Your task to perform on an android device: check android version Image 0: 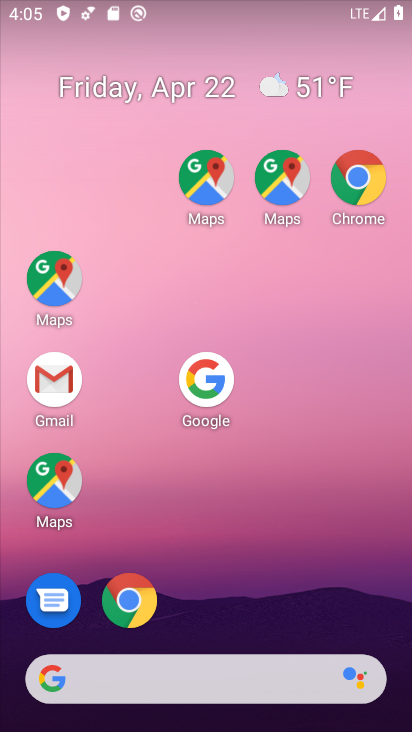
Step 0: drag from (279, 723) to (29, 14)
Your task to perform on an android device: check android version Image 1: 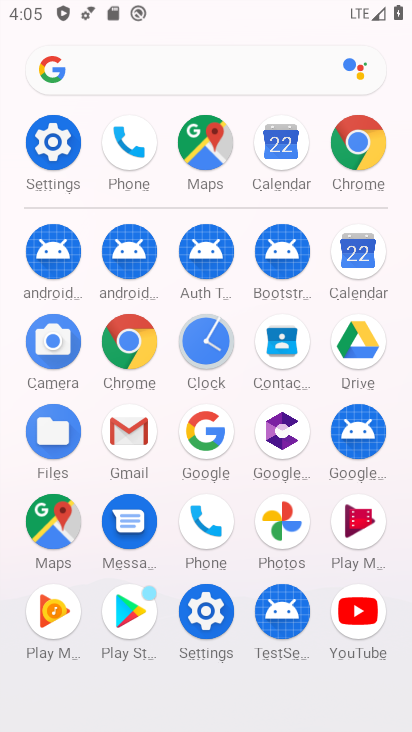
Step 1: click (363, 144)
Your task to perform on an android device: check android version Image 2: 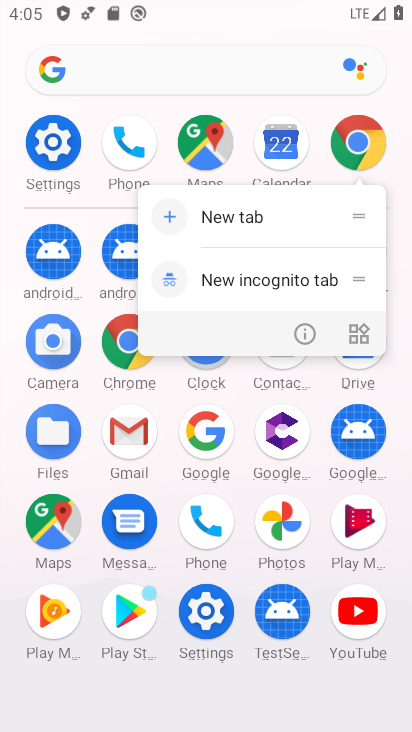
Step 2: click (362, 144)
Your task to perform on an android device: check android version Image 3: 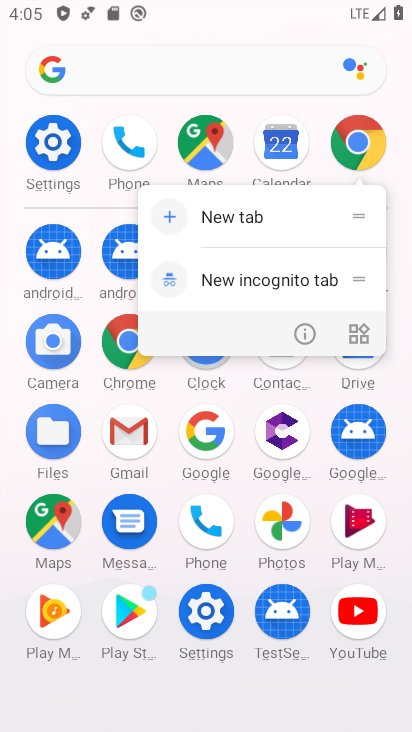
Step 3: click (362, 144)
Your task to perform on an android device: check android version Image 4: 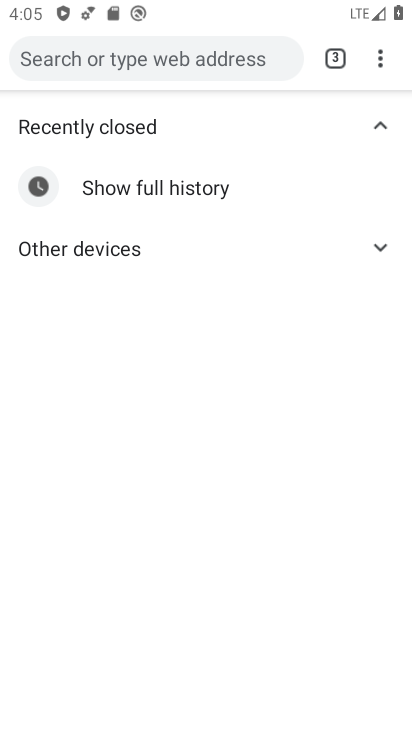
Step 4: click (381, 141)
Your task to perform on an android device: check android version Image 5: 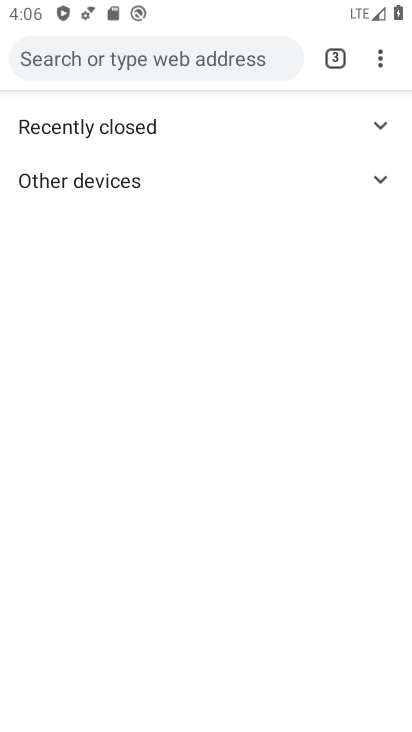
Step 5: press home button
Your task to perform on an android device: check android version Image 6: 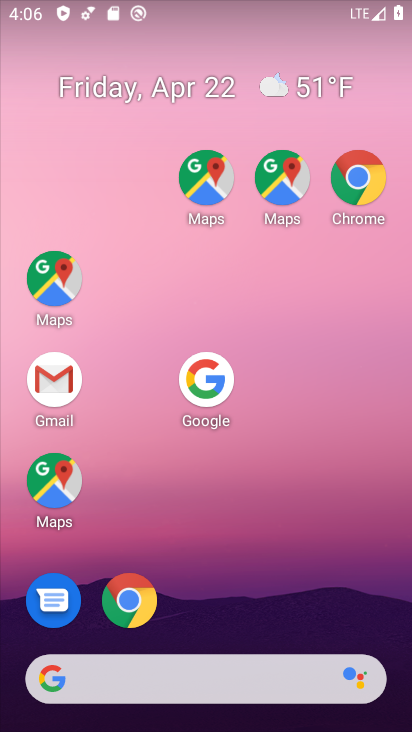
Step 6: drag from (317, 588) to (152, 28)
Your task to perform on an android device: check android version Image 7: 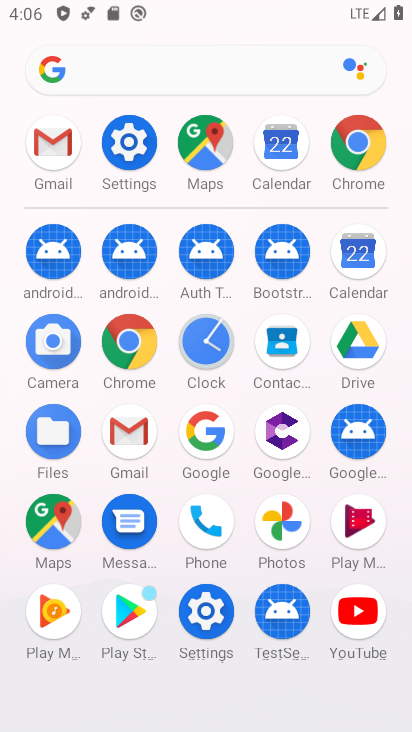
Step 7: click (355, 147)
Your task to perform on an android device: check android version Image 8: 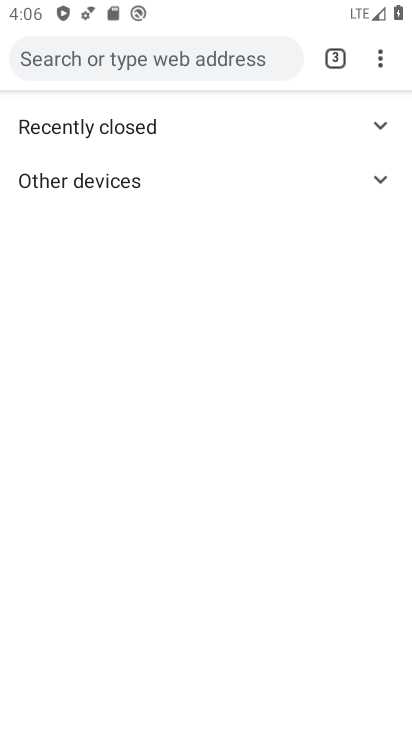
Step 8: press home button
Your task to perform on an android device: check android version Image 9: 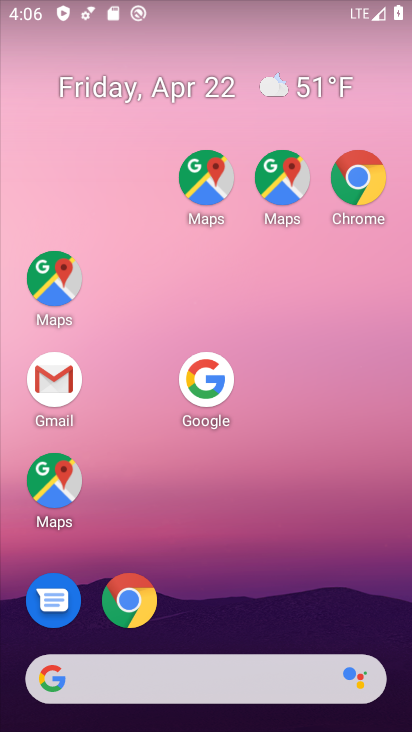
Step 9: drag from (152, 365) to (68, 70)
Your task to perform on an android device: check android version Image 10: 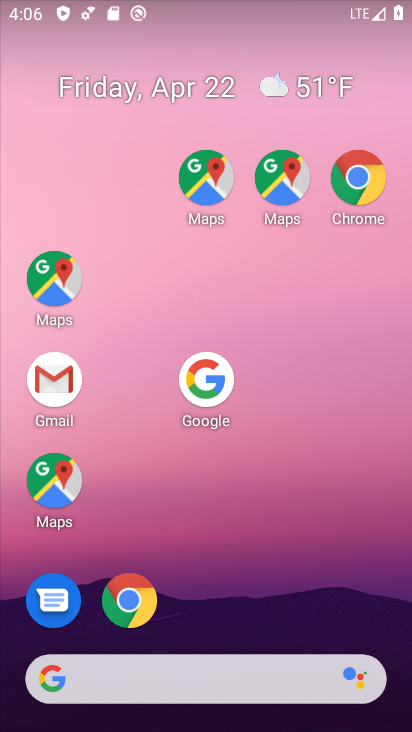
Step 10: drag from (182, 291) to (139, 101)
Your task to perform on an android device: check android version Image 11: 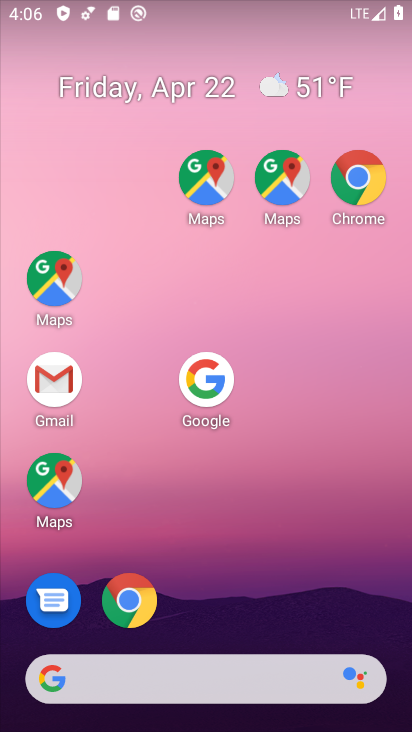
Step 11: drag from (284, 540) to (151, 136)
Your task to perform on an android device: check android version Image 12: 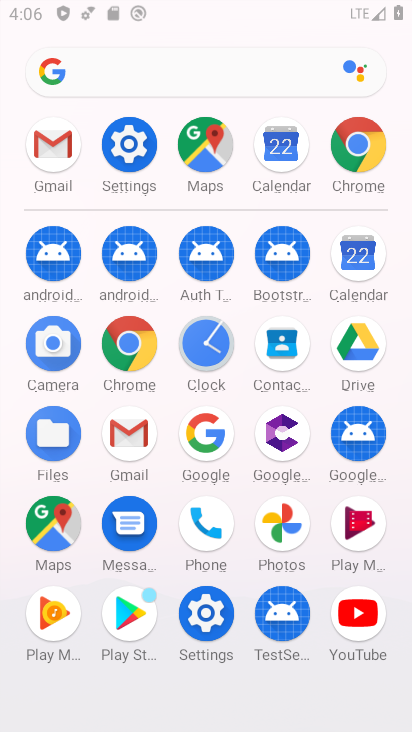
Step 12: drag from (276, 397) to (181, 131)
Your task to perform on an android device: check android version Image 13: 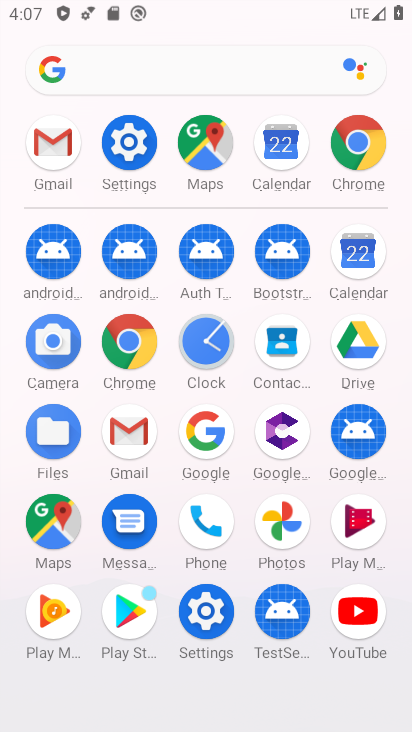
Step 13: click (205, 612)
Your task to perform on an android device: check android version Image 14: 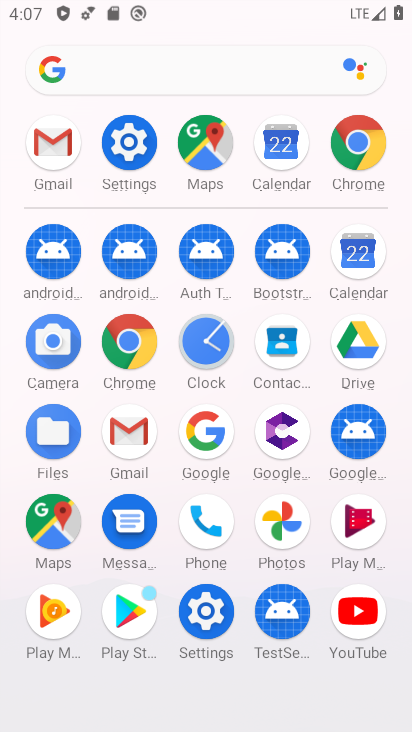
Step 14: click (207, 612)
Your task to perform on an android device: check android version Image 15: 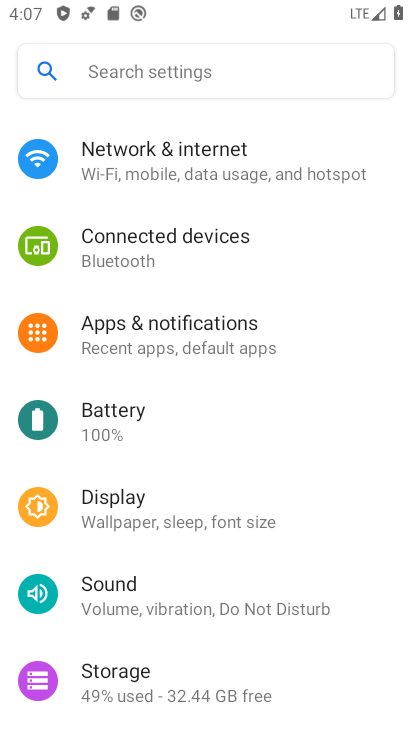
Step 15: click (207, 612)
Your task to perform on an android device: check android version Image 16: 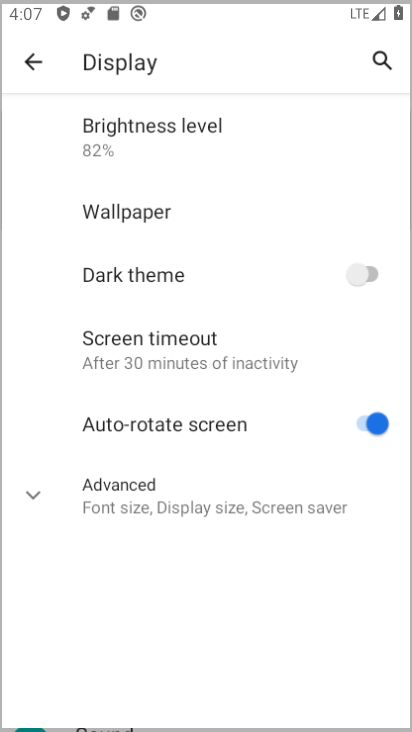
Step 16: drag from (229, 570) to (264, 10)
Your task to perform on an android device: check android version Image 17: 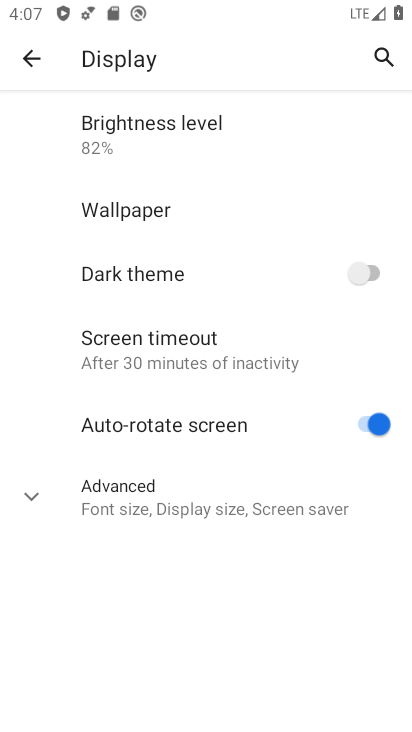
Step 17: click (29, 66)
Your task to perform on an android device: check android version Image 18: 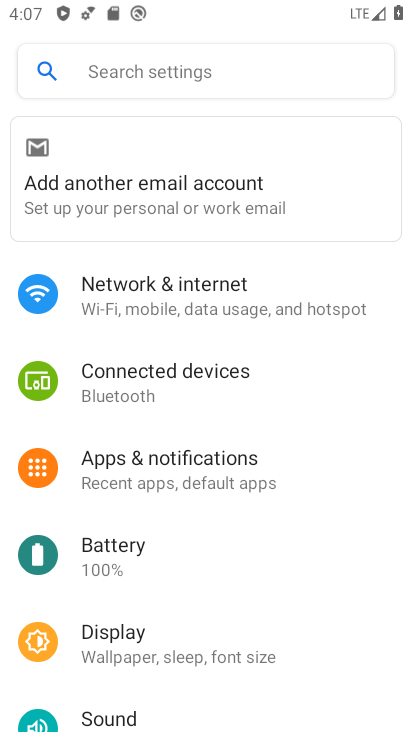
Step 18: drag from (217, 497) to (124, 119)
Your task to perform on an android device: check android version Image 19: 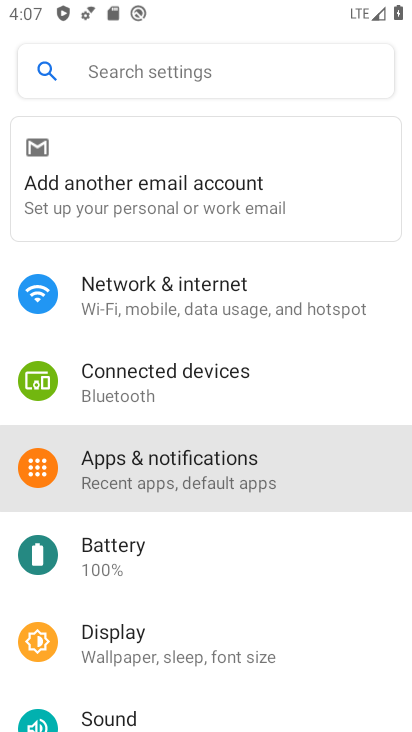
Step 19: drag from (161, 420) to (123, 183)
Your task to perform on an android device: check android version Image 20: 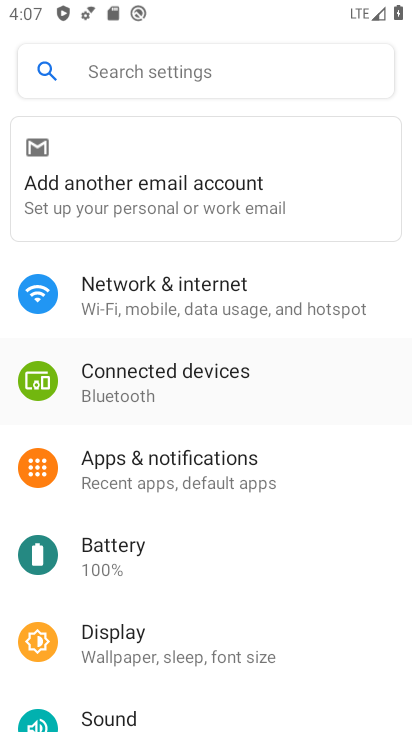
Step 20: drag from (165, 542) to (147, 122)
Your task to perform on an android device: check android version Image 21: 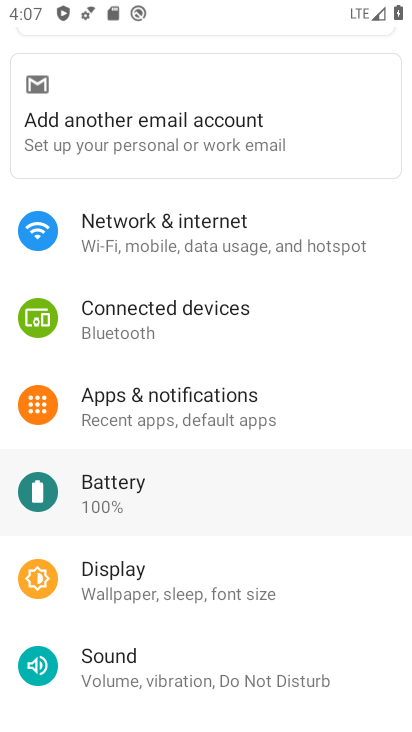
Step 21: drag from (188, 562) to (152, 145)
Your task to perform on an android device: check android version Image 22: 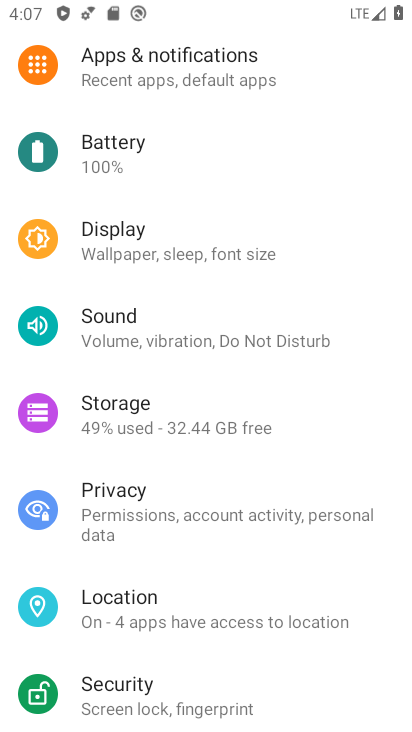
Step 22: drag from (160, 509) to (142, 318)
Your task to perform on an android device: check android version Image 23: 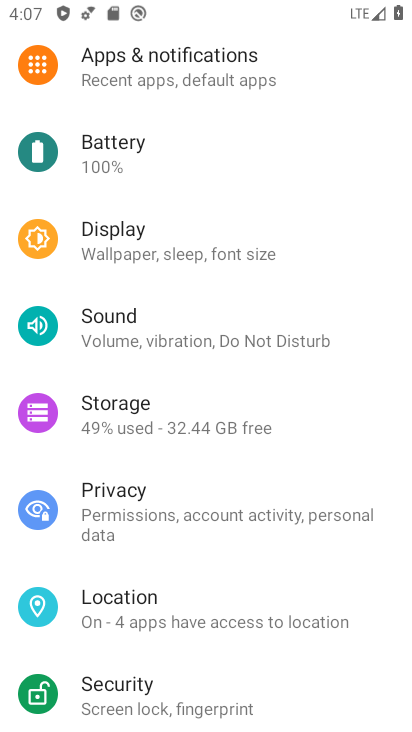
Step 23: drag from (224, 508) to (172, 50)
Your task to perform on an android device: check android version Image 24: 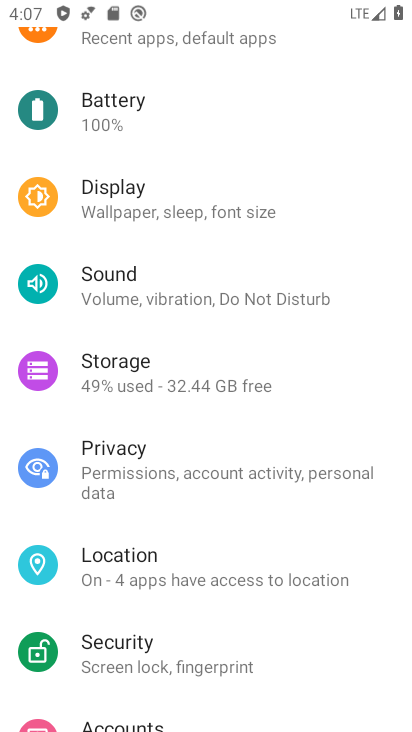
Step 24: drag from (207, 545) to (221, 58)
Your task to perform on an android device: check android version Image 25: 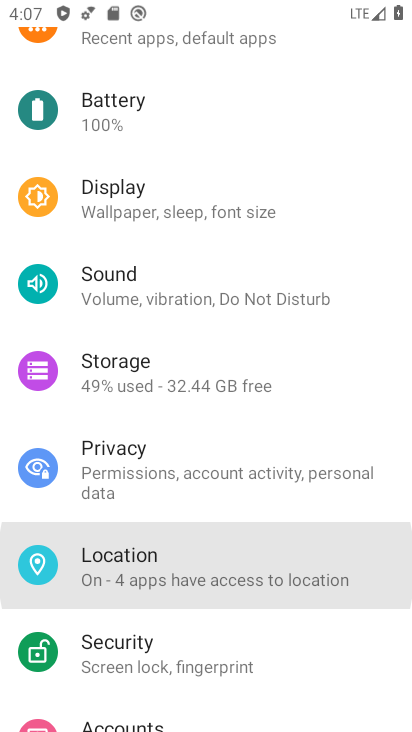
Step 25: drag from (178, 534) to (109, 102)
Your task to perform on an android device: check android version Image 26: 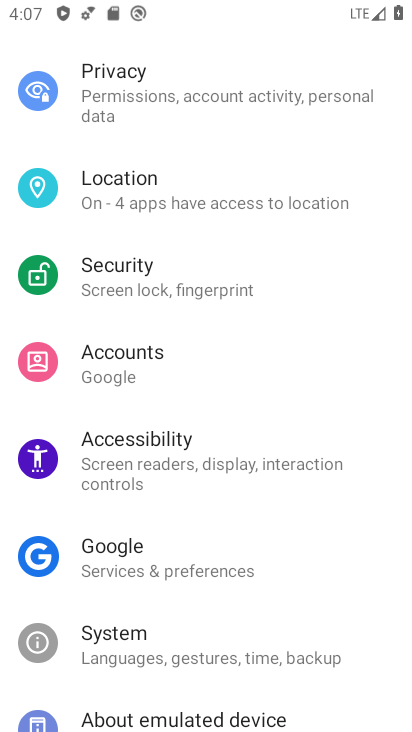
Step 26: drag from (125, 388) to (124, 16)
Your task to perform on an android device: check android version Image 27: 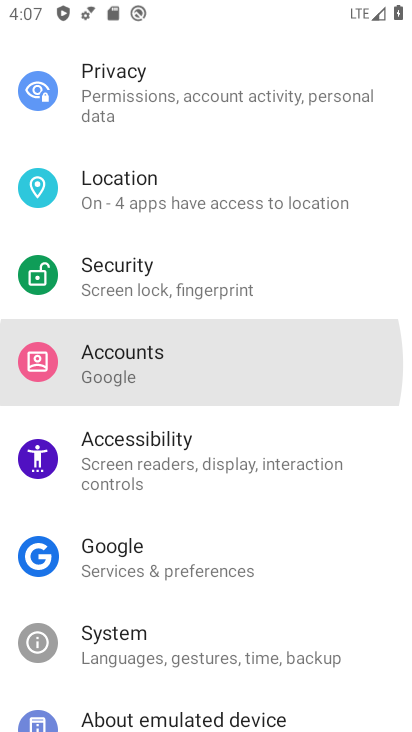
Step 27: drag from (242, 535) to (115, 41)
Your task to perform on an android device: check android version Image 28: 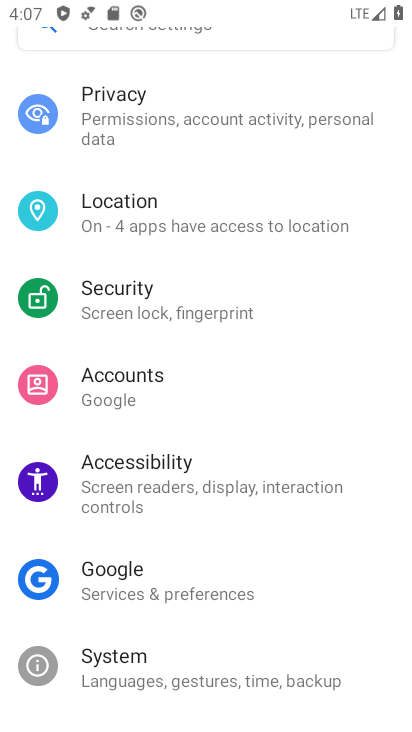
Step 28: drag from (194, 339) to (166, 61)
Your task to perform on an android device: check android version Image 29: 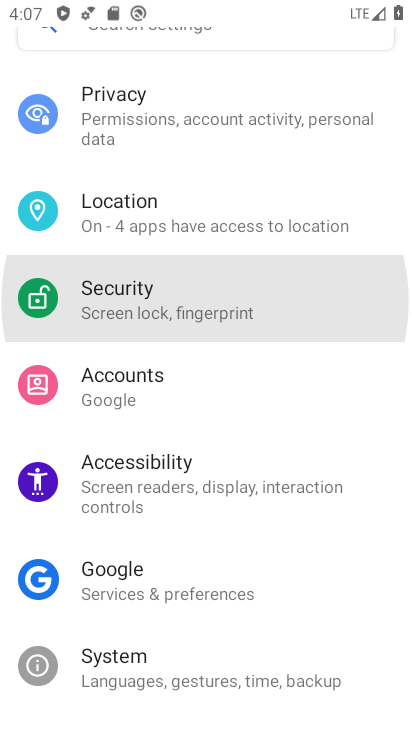
Step 29: drag from (164, 470) to (180, 92)
Your task to perform on an android device: check android version Image 30: 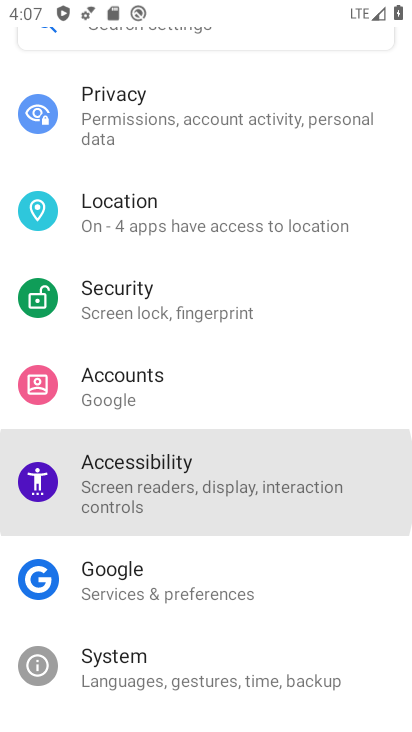
Step 30: drag from (265, 560) to (262, 1)
Your task to perform on an android device: check android version Image 31: 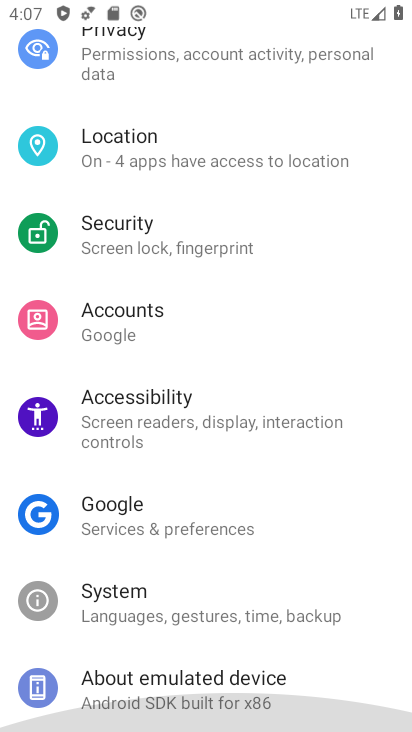
Step 31: drag from (202, 448) to (202, 128)
Your task to perform on an android device: check android version Image 32: 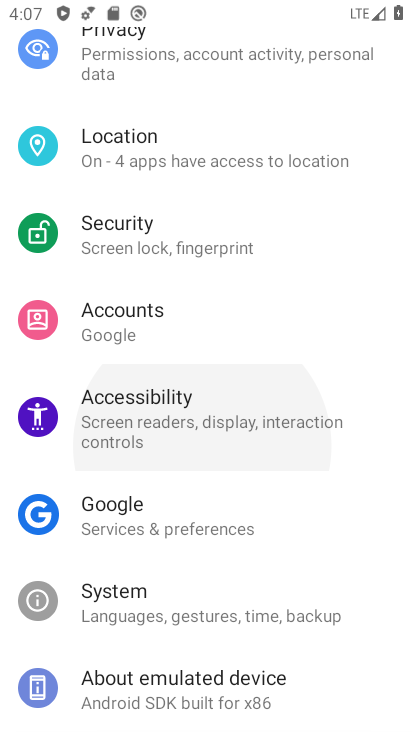
Step 32: drag from (202, 442) to (202, 153)
Your task to perform on an android device: check android version Image 33: 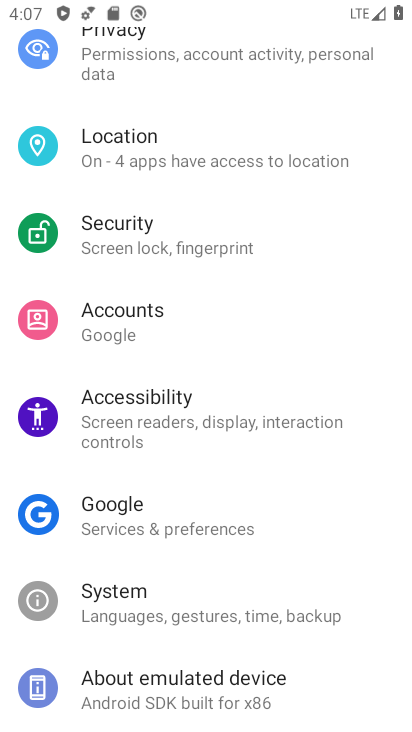
Step 33: click (160, 688)
Your task to perform on an android device: check android version Image 34: 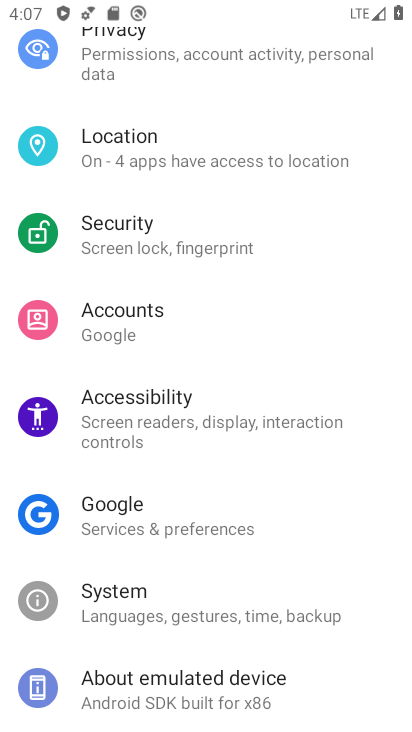
Step 34: click (156, 685)
Your task to perform on an android device: check android version Image 35: 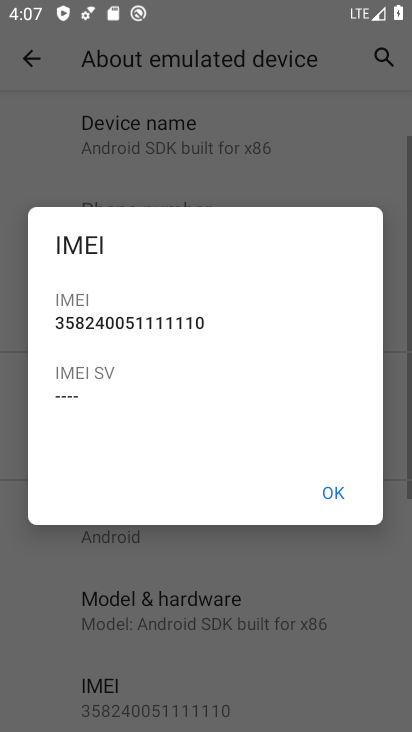
Step 35: click (330, 502)
Your task to perform on an android device: check android version Image 36: 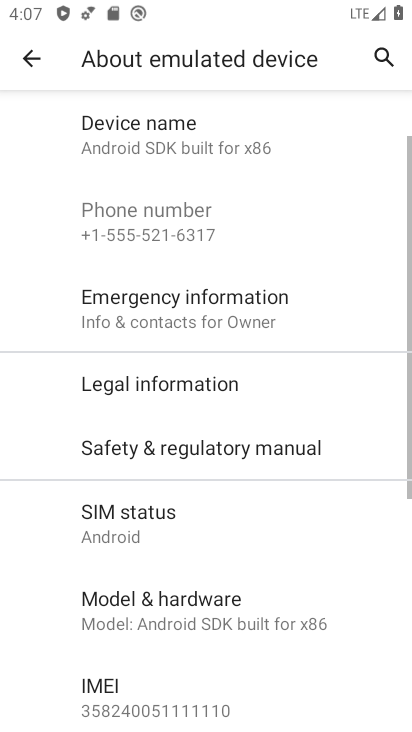
Step 36: click (30, 66)
Your task to perform on an android device: check android version Image 37: 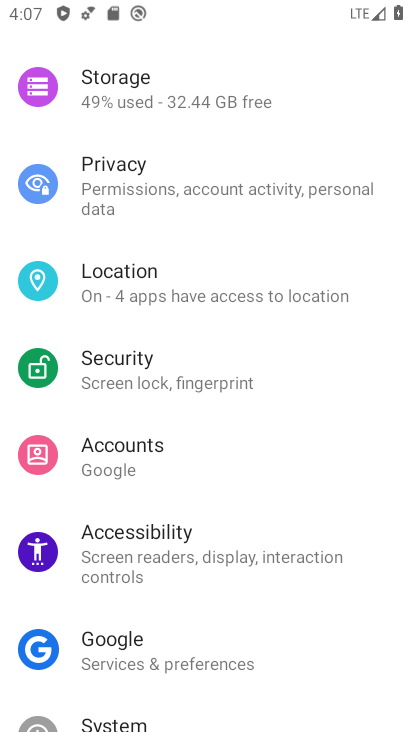
Step 37: drag from (173, 405) to (166, 457)
Your task to perform on an android device: check android version Image 38: 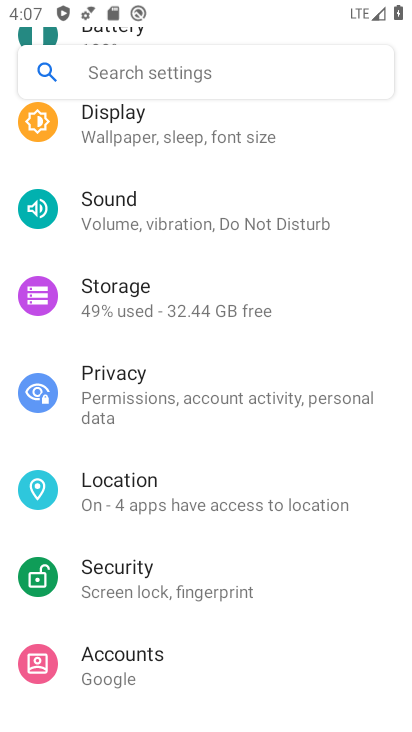
Step 38: drag from (97, 105) to (263, 634)
Your task to perform on an android device: check android version Image 39: 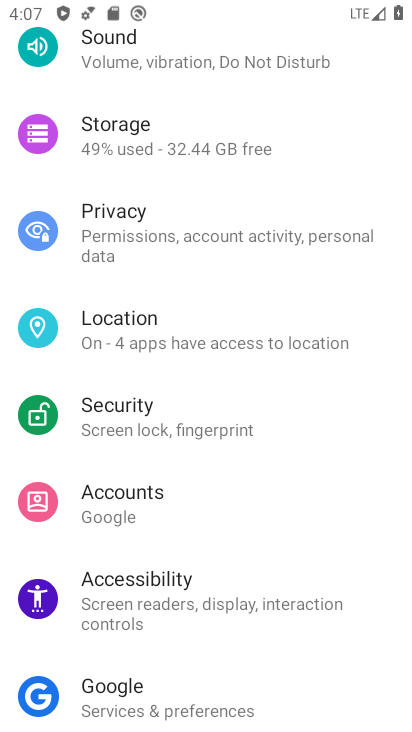
Step 39: click (209, 450)
Your task to perform on an android device: check android version Image 40: 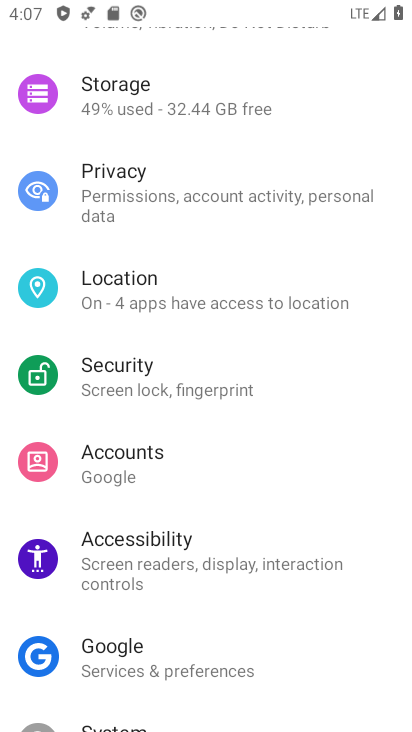
Step 40: drag from (237, 502) to (185, 464)
Your task to perform on an android device: check android version Image 41: 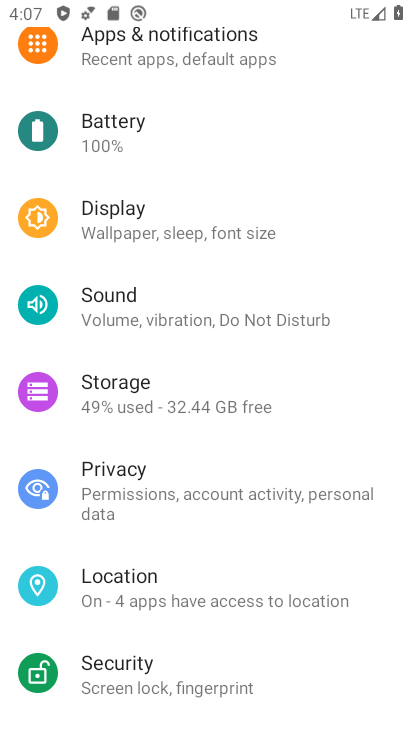
Step 41: drag from (194, 406) to (278, 649)
Your task to perform on an android device: check android version Image 42: 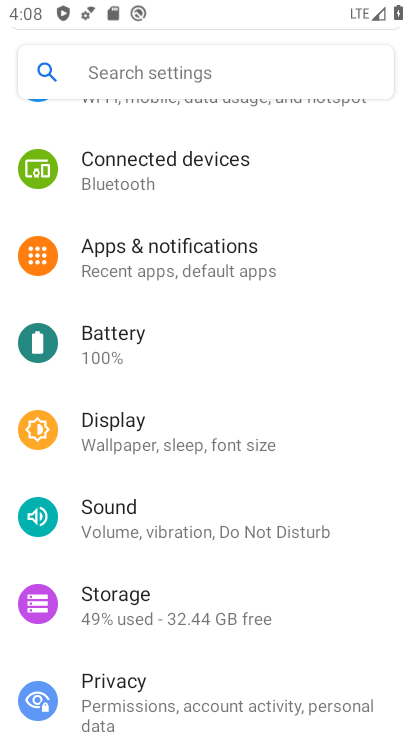
Step 42: click (124, 166)
Your task to perform on an android device: check android version Image 43: 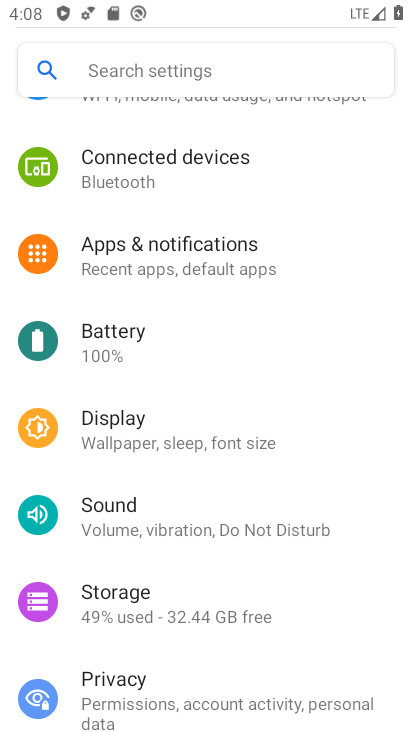
Step 43: drag from (167, 215) to (128, 548)
Your task to perform on an android device: check android version Image 44: 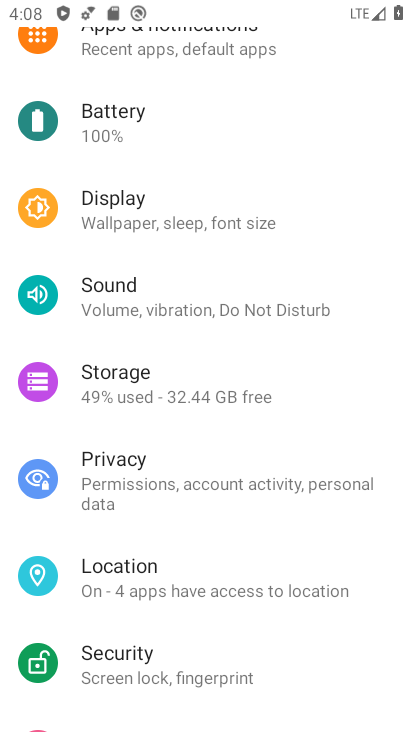
Step 44: drag from (140, 316) to (214, 624)
Your task to perform on an android device: check android version Image 45: 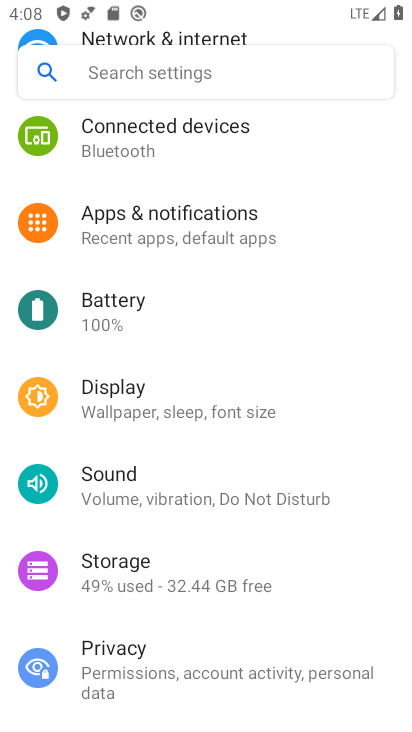
Step 45: drag from (208, 240) to (211, 182)
Your task to perform on an android device: check android version Image 46: 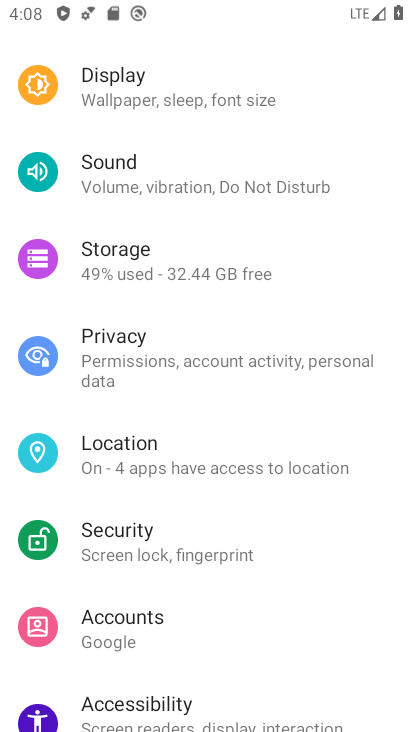
Step 46: drag from (221, 206) to (217, 134)
Your task to perform on an android device: check android version Image 47: 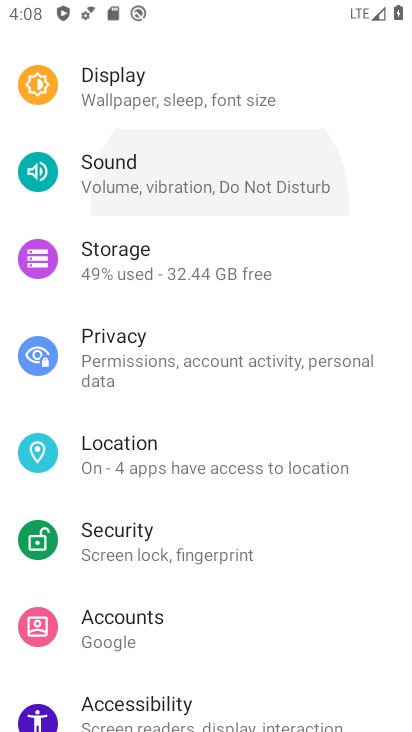
Step 47: drag from (271, 360) to (241, 71)
Your task to perform on an android device: check android version Image 48: 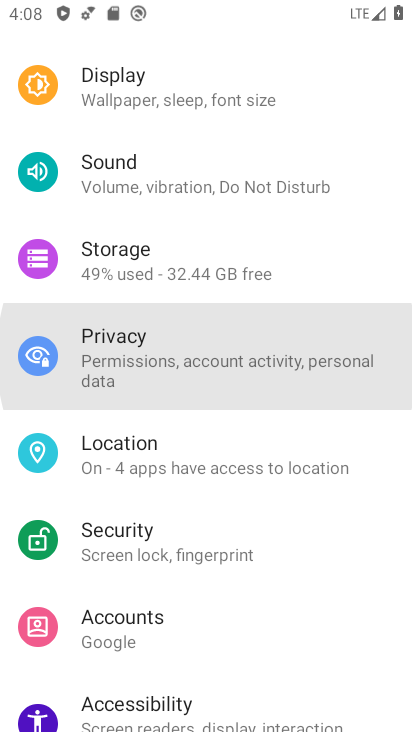
Step 48: drag from (125, 132) to (119, 70)
Your task to perform on an android device: check android version Image 49: 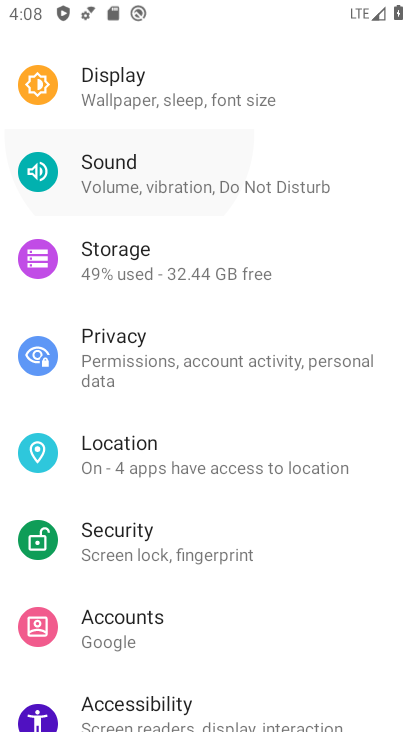
Step 49: drag from (238, 452) to (224, 238)
Your task to perform on an android device: check android version Image 50: 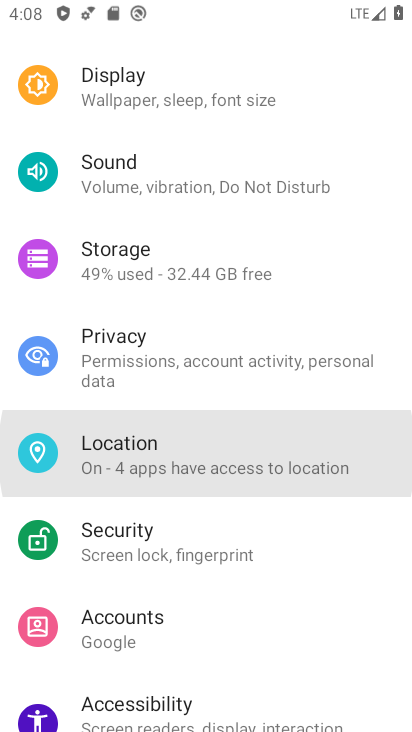
Step 50: drag from (225, 439) to (196, 184)
Your task to perform on an android device: check android version Image 51: 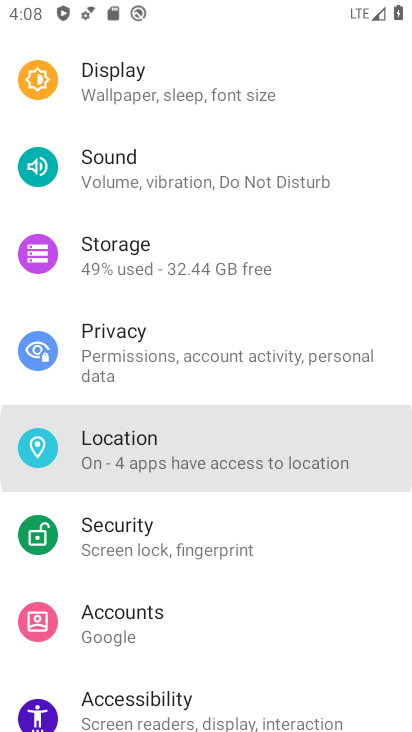
Step 51: drag from (136, 259) to (109, 27)
Your task to perform on an android device: check android version Image 52: 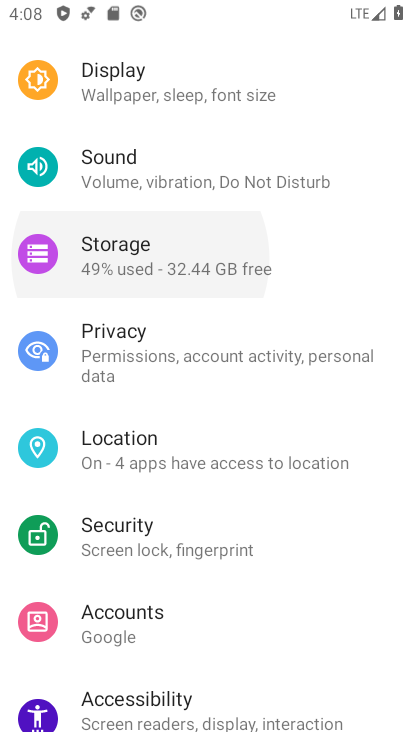
Step 52: drag from (247, 487) to (170, 147)
Your task to perform on an android device: check android version Image 53: 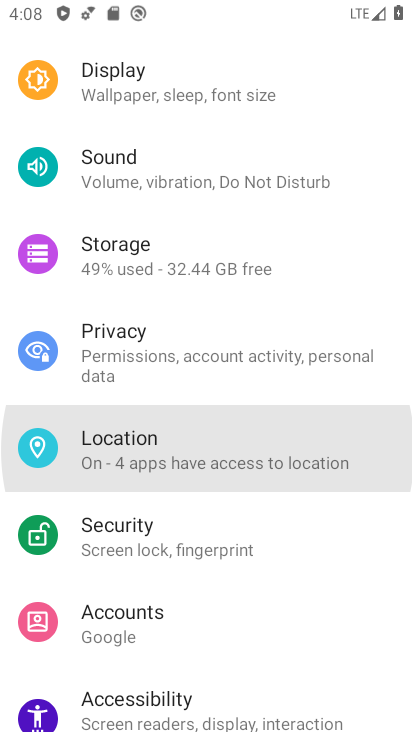
Step 53: drag from (238, 549) to (170, 144)
Your task to perform on an android device: check android version Image 54: 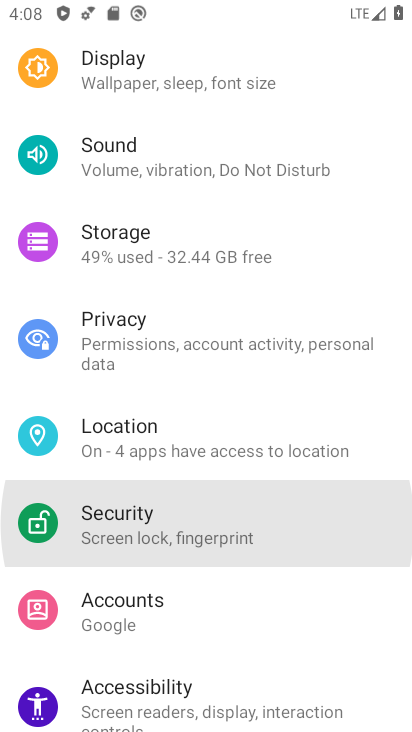
Step 54: drag from (279, 556) to (194, 57)
Your task to perform on an android device: check android version Image 55: 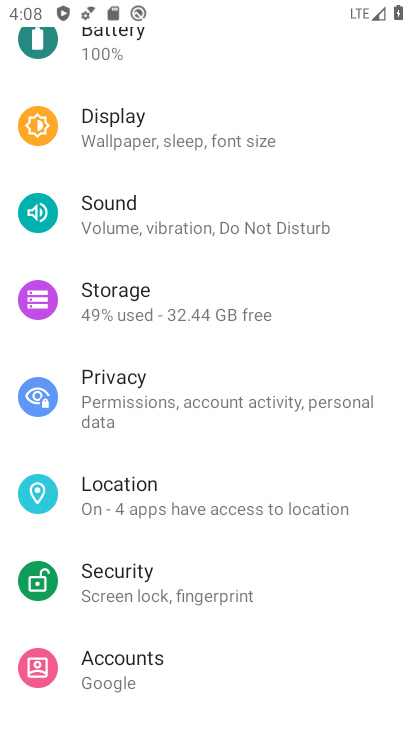
Step 55: drag from (209, 433) to (167, 117)
Your task to perform on an android device: check android version Image 56: 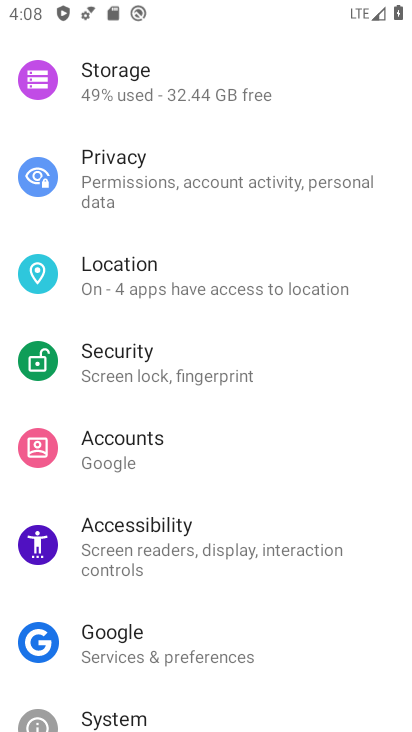
Step 56: drag from (188, 584) to (163, 214)
Your task to perform on an android device: check android version Image 57: 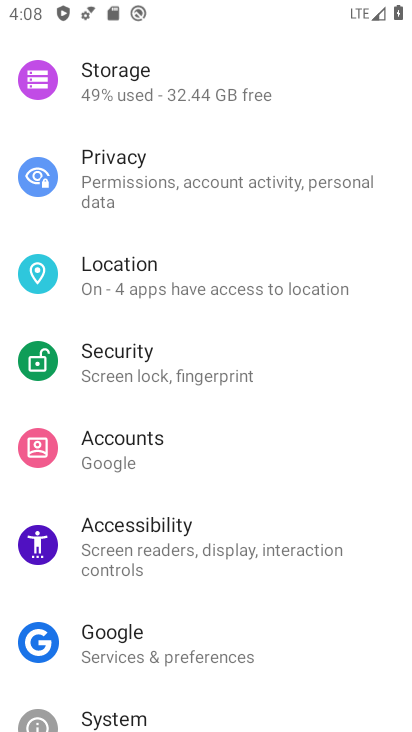
Step 57: drag from (213, 601) to (128, 291)
Your task to perform on an android device: check android version Image 58: 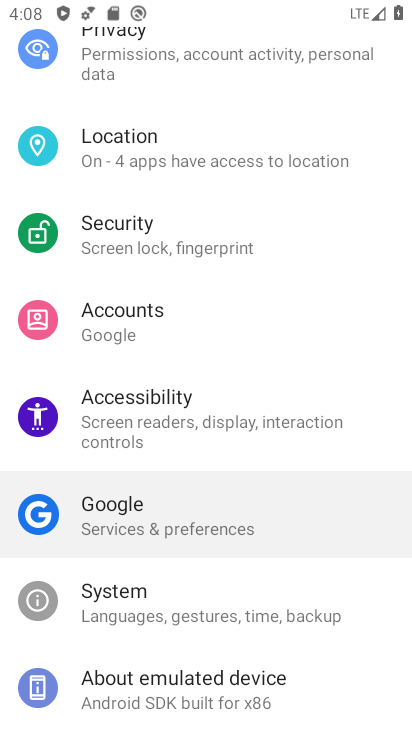
Step 58: drag from (230, 497) to (221, 247)
Your task to perform on an android device: check android version Image 59: 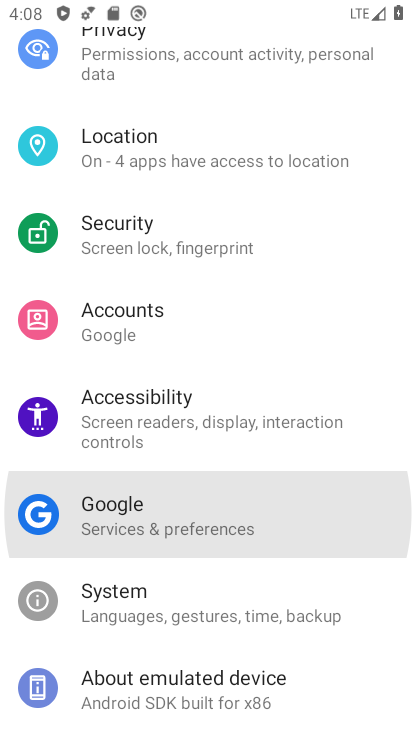
Step 59: drag from (253, 538) to (251, 254)
Your task to perform on an android device: check android version Image 60: 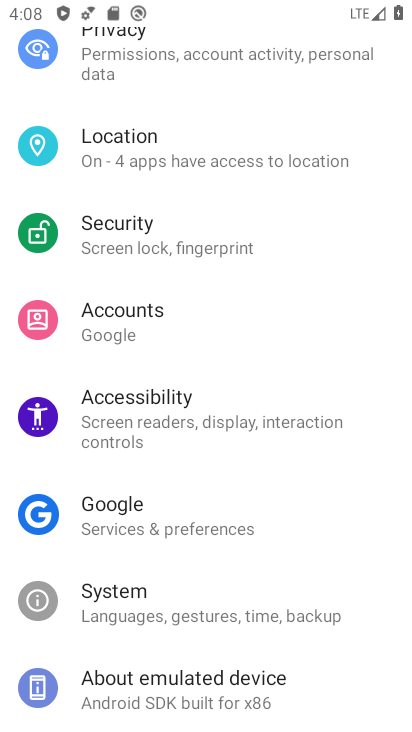
Step 60: click (158, 678)
Your task to perform on an android device: check android version Image 61: 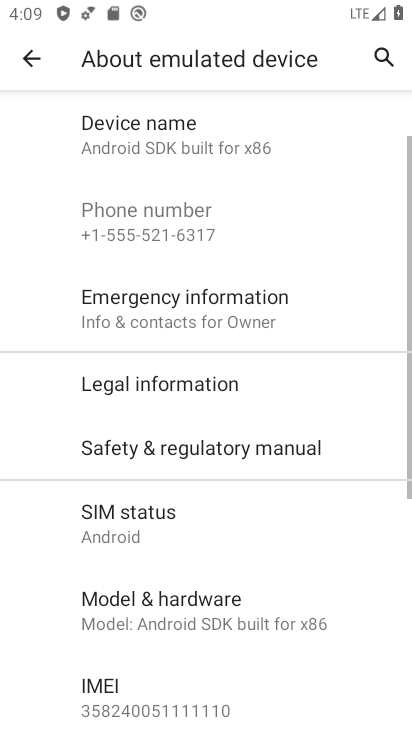
Step 61: task complete